Your task to perform on an android device: Go to accessibility settings Image 0: 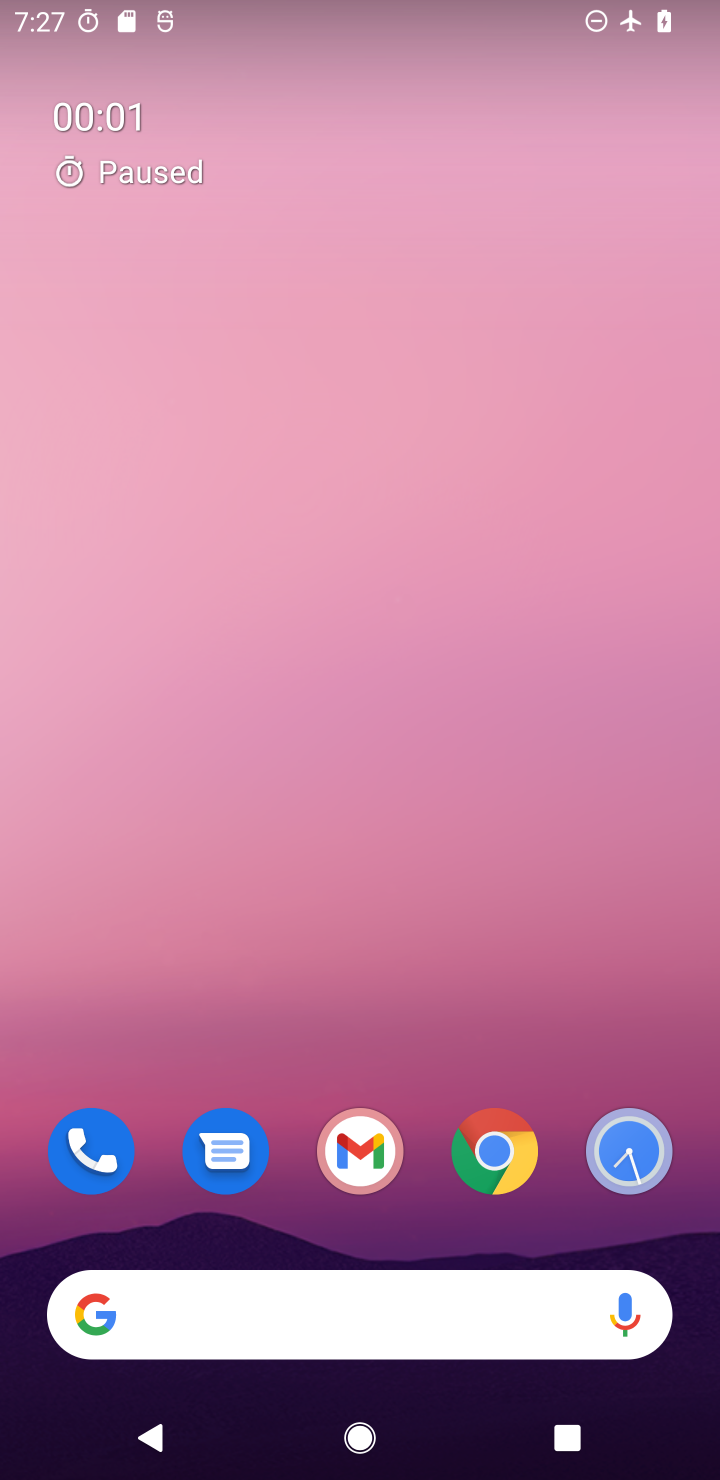
Step 0: drag from (434, 1225) to (471, 207)
Your task to perform on an android device: Go to accessibility settings Image 1: 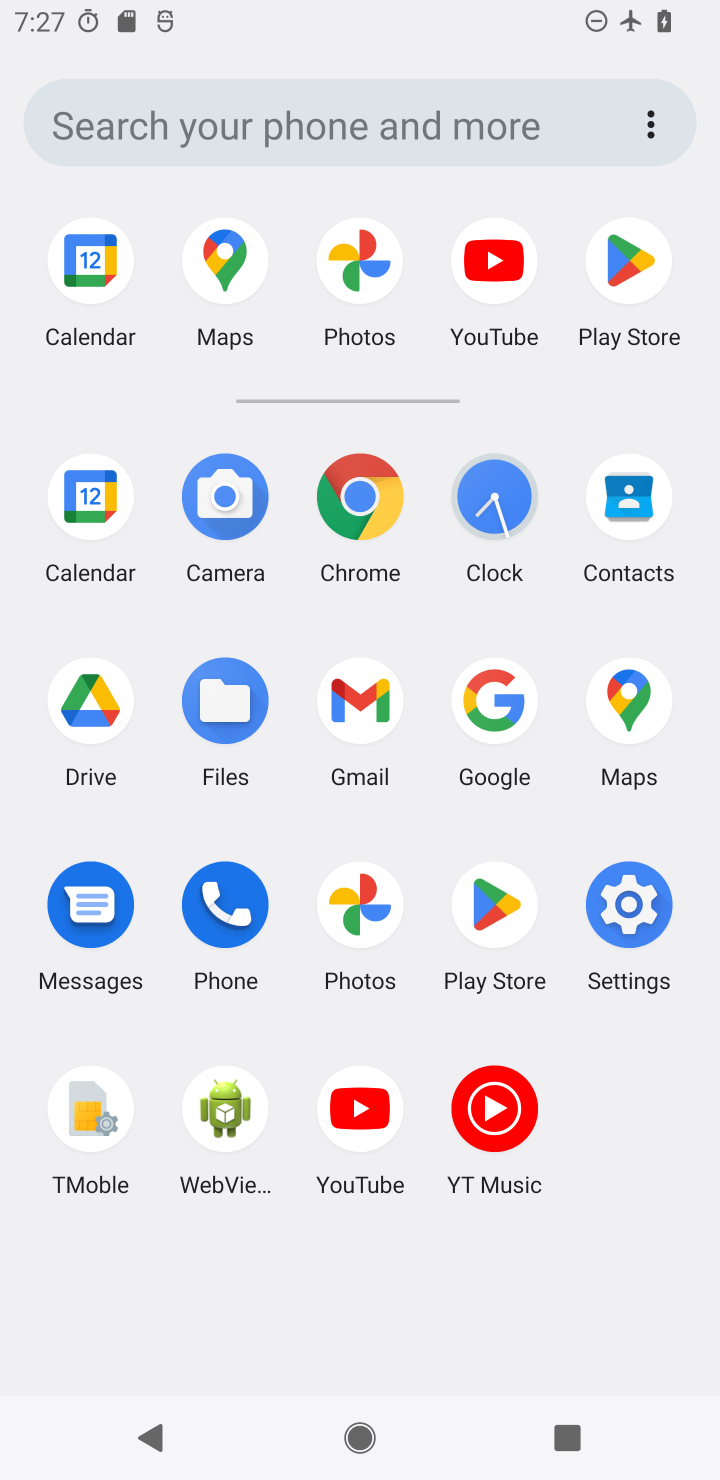
Step 1: click (640, 888)
Your task to perform on an android device: Go to accessibility settings Image 2: 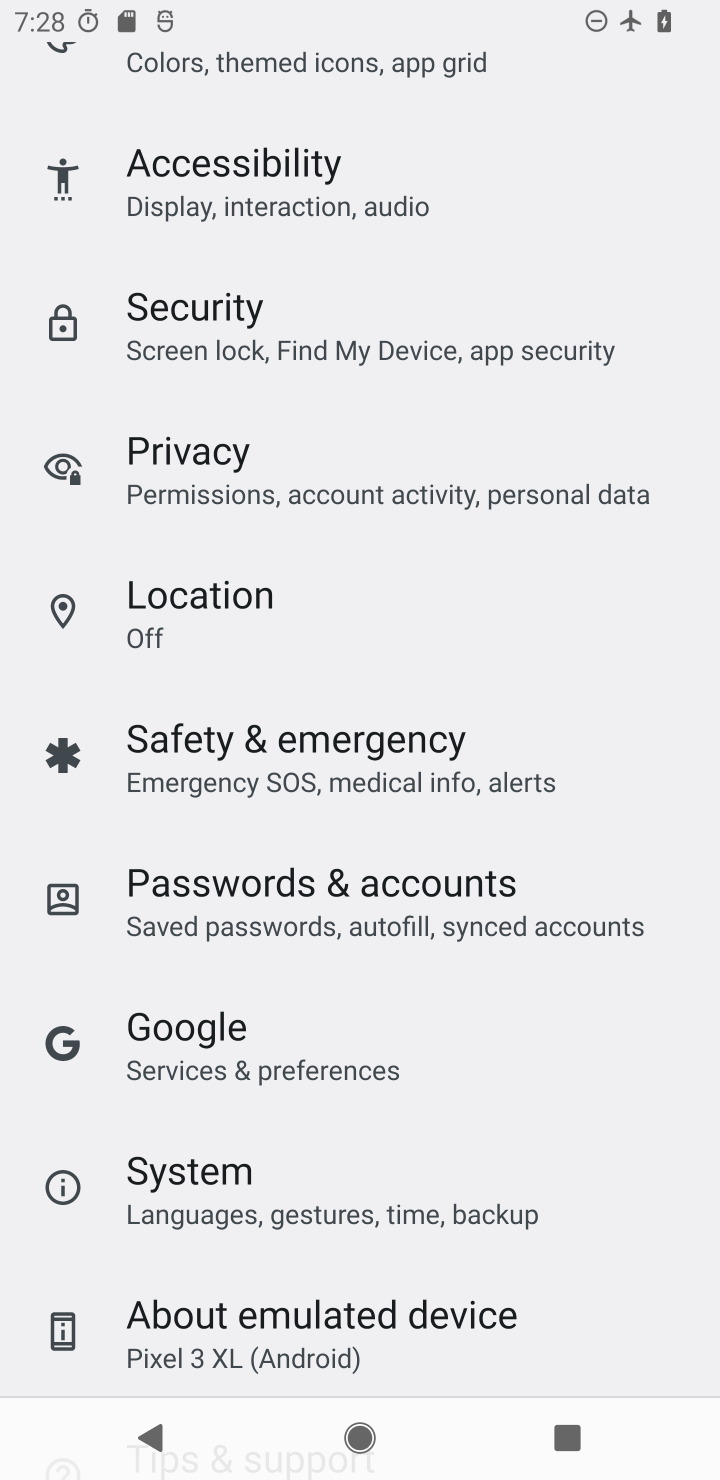
Step 2: click (344, 196)
Your task to perform on an android device: Go to accessibility settings Image 3: 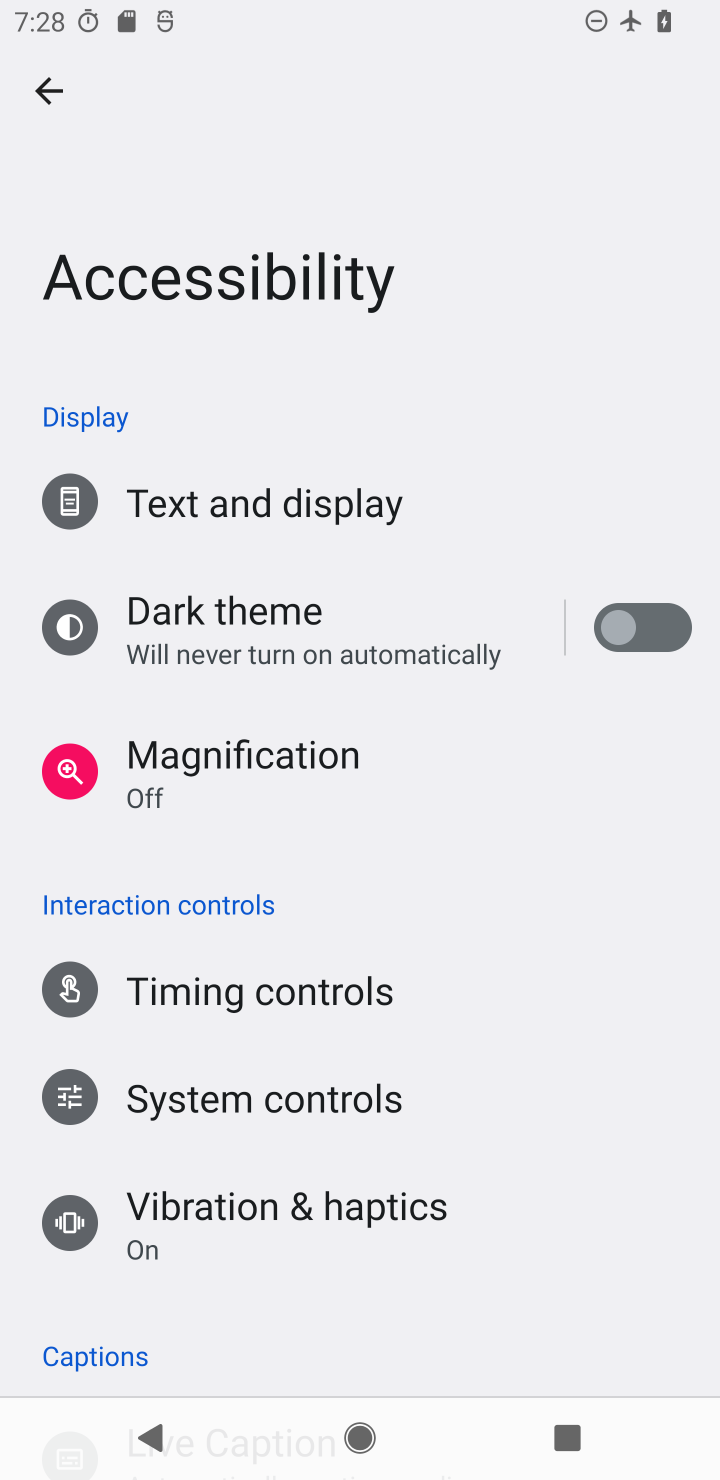
Step 3: task complete